Your task to perform on an android device: Go to location settings Image 0: 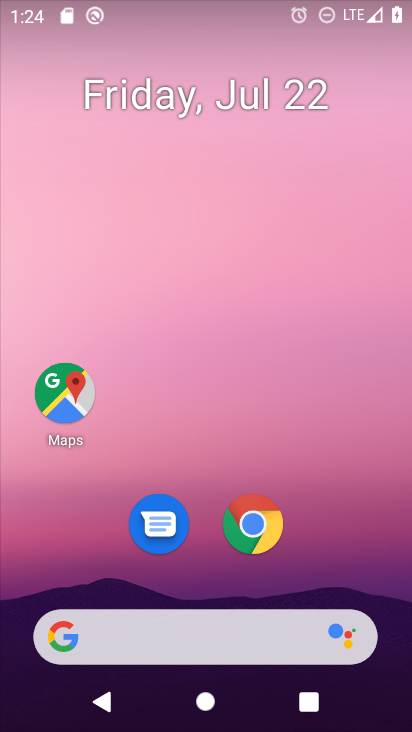
Step 0: drag from (335, 532) to (331, 64)
Your task to perform on an android device: Go to location settings Image 1: 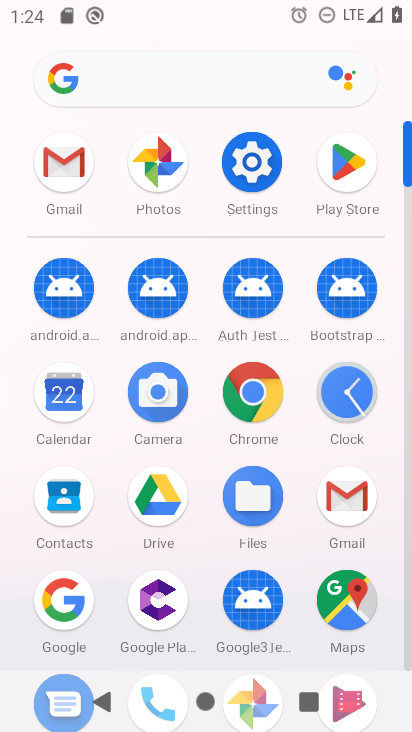
Step 1: click (260, 157)
Your task to perform on an android device: Go to location settings Image 2: 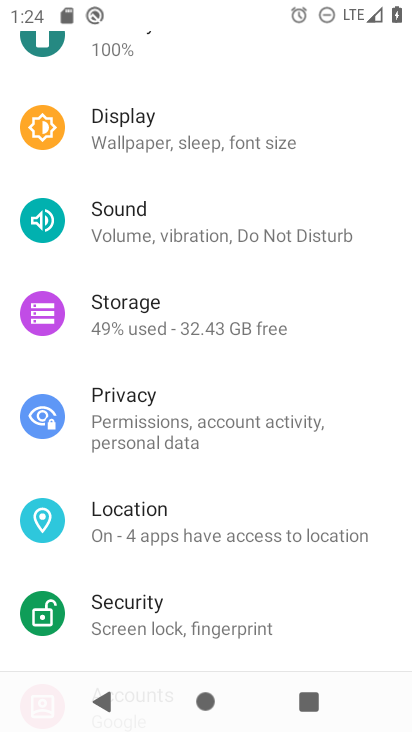
Step 2: click (187, 523)
Your task to perform on an android device: Go to location settings Image 3: 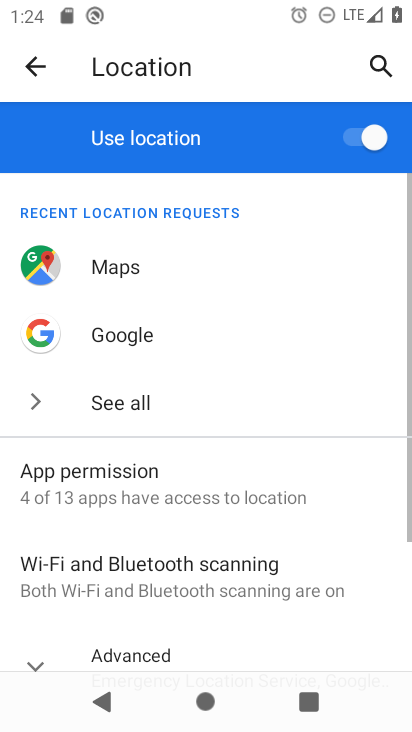
Step 3: task complete